Your task to perform on an android device: Open the calendar and show me this week's events? Image 0: 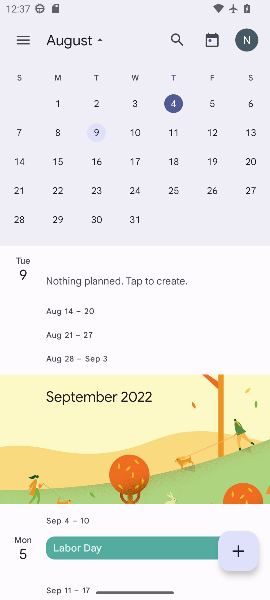
Step 0: click (218, 105)
Your task to perform on an android device: Open the calendar and show me this week's events? Image 1: 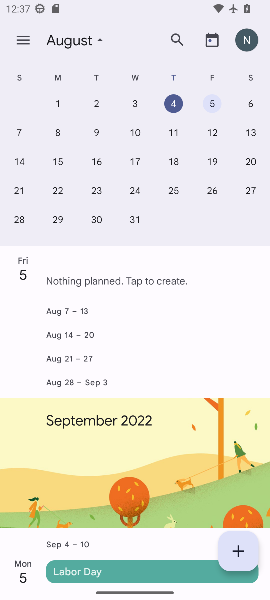
Step 1: click (247, 102)
Your task to perform on an android device: Open the calendar and show me this week's events? Image 2: 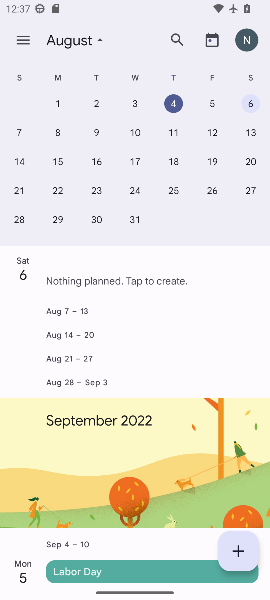
Step 2: task complete